Your task to perform on an android device: Open Maps and search for coffee Image 0: 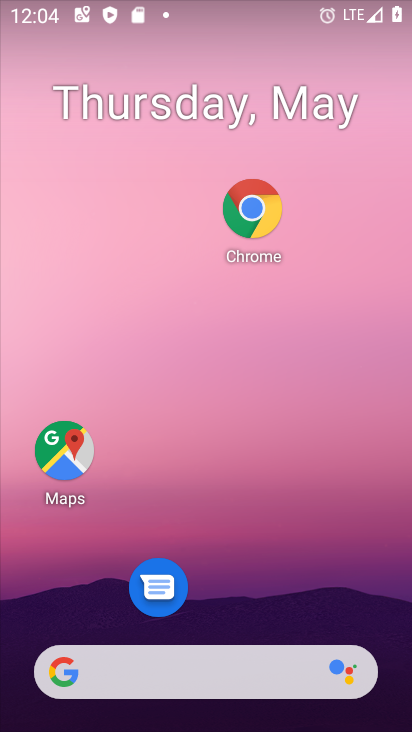
Step 0: click (66, 453)
Your task to perform on an android device: Open Maps and search for coffee Image 1: 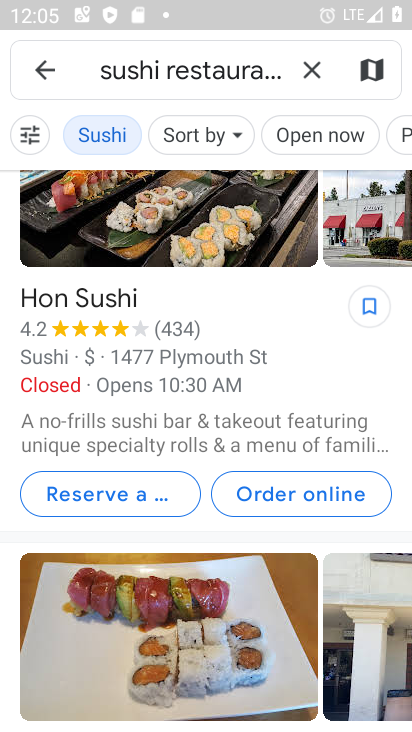
Step 1: click (310, 69)
Your task to perform on an android device: Open Maps and search for coffee Image 2: 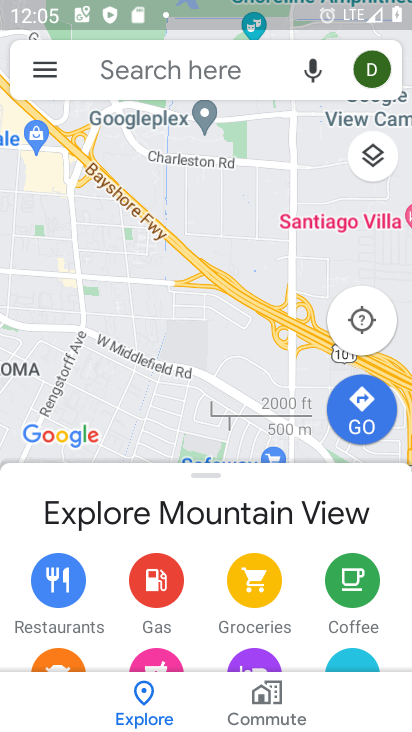
Step 2: click (159, 67)
Your task to perform on an android device: Open Maps and search for coffee Image 3: 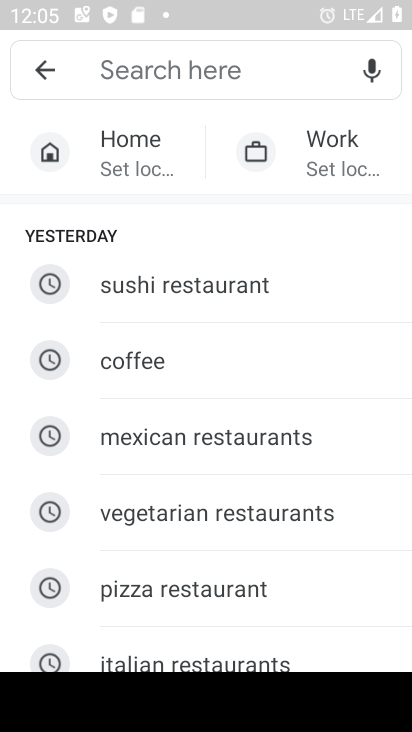
Step 3: click (158, 358)
Your task to perform on an android device: Open Maps and search for coffee Image 4: 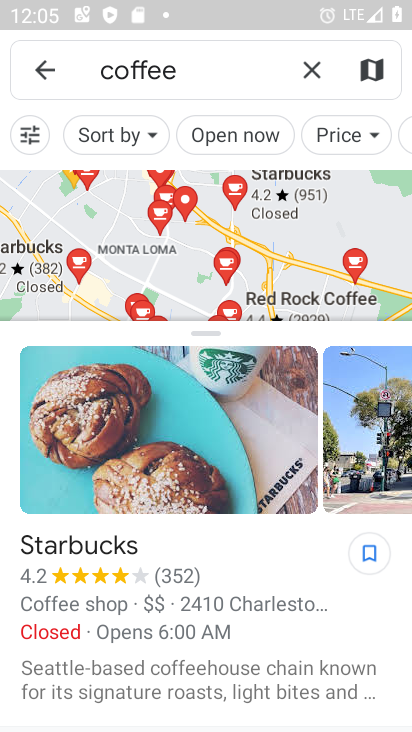
Step 4: task complete